Your task to perform on an android device: install app "NewsBreak: Local News & Alerts" Image 0: 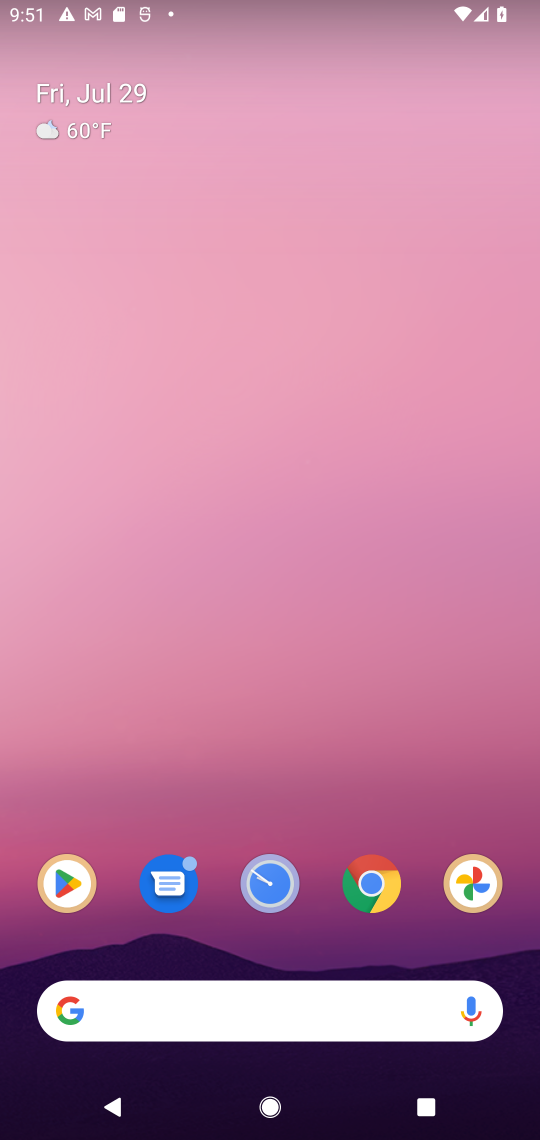
Step 0: click (69, 881)
Your task to perform on an android device: install app "NewsBreak: Local News & Alerts" Image 1: 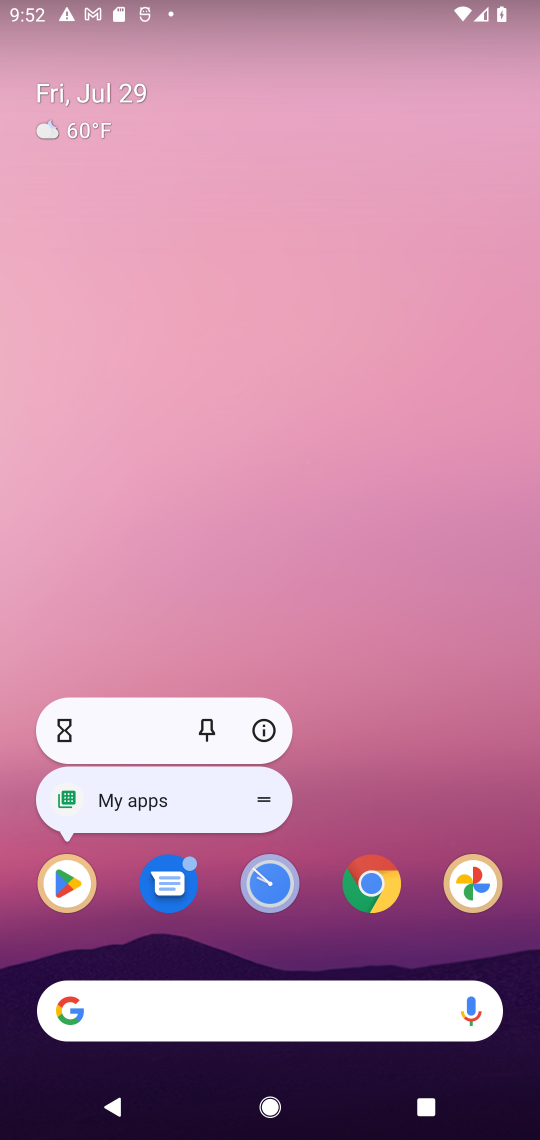
Step 1: click (70, 884)
Your task to perform on an android device: install app "NewsBreak: Local News & Alerts" Image 2: 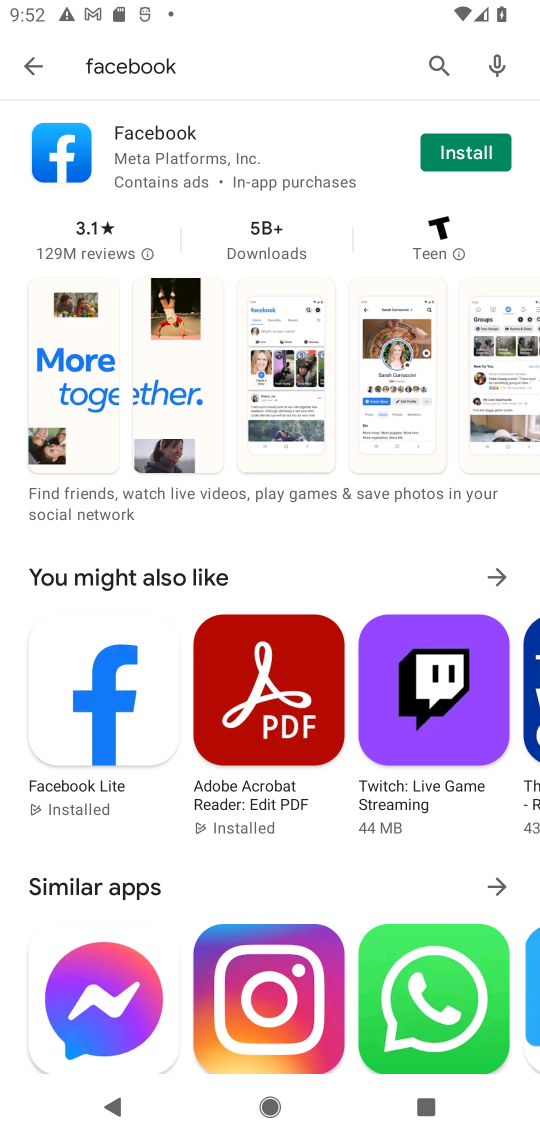
Step 2: click (136, 61)
Your task to perform on an android device: install app "NewsBreak: Local News & Alerts" Image 3: 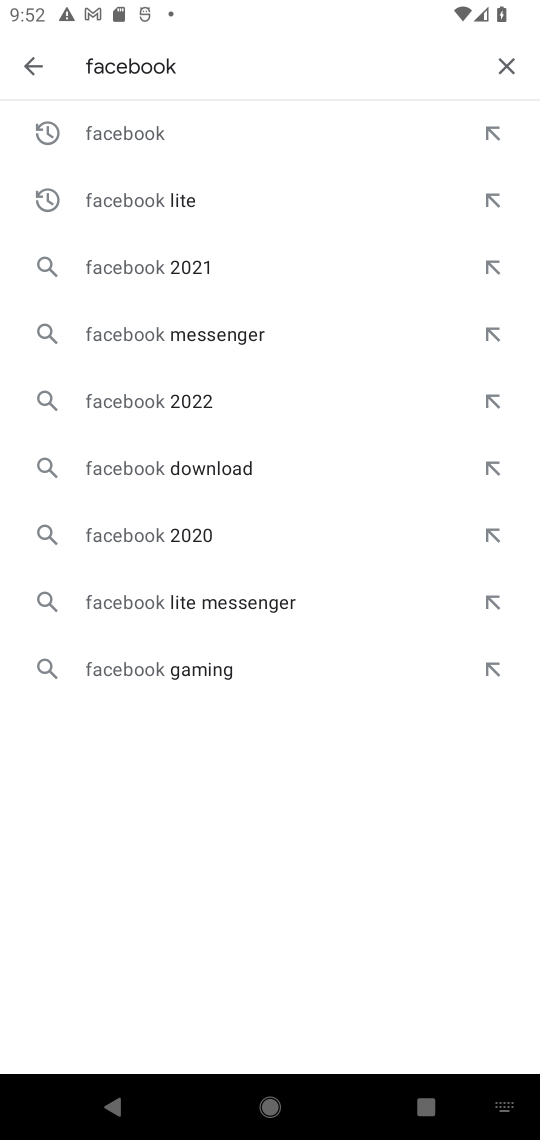
Step 3: click (482, 59)
Your task to perform on an android device: install app "NewsBreak: Local News & Alerts" Image 4: 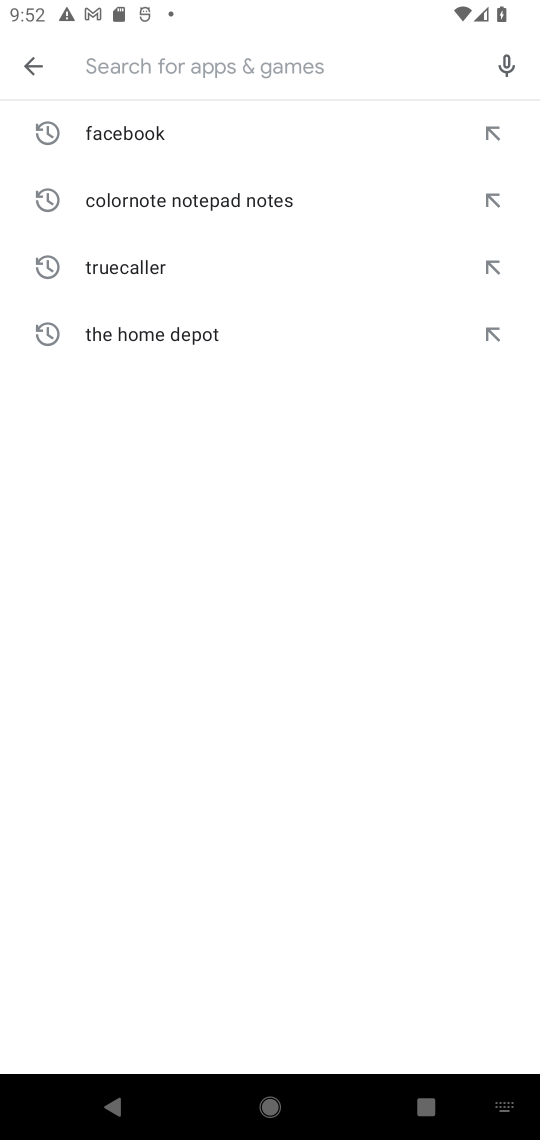
Step 4: type "newsBreak"
Your task to perform on an android device: install app "NewsBreak: Local News & Alerts" Image 5: 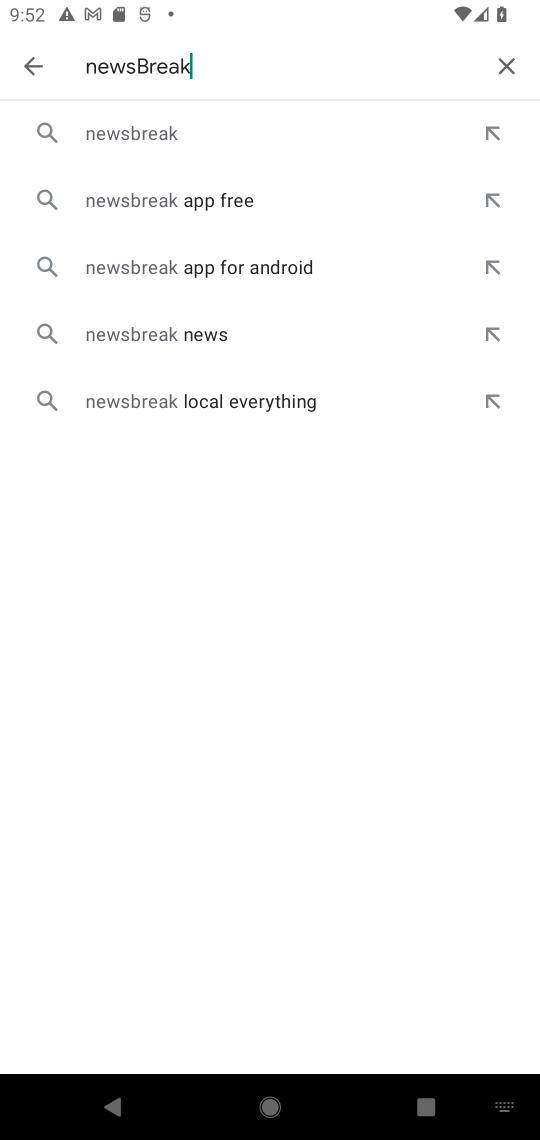
Step 5: click (181, 141)
Your task to perform on an android device: install app "NewsBreak: Local News & Alerts" Image 6: 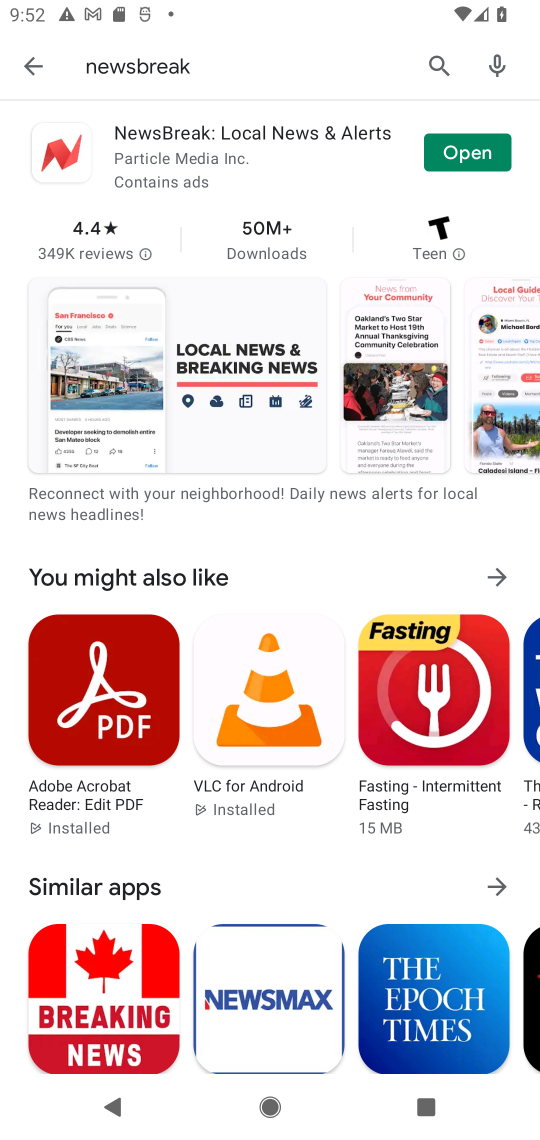
Step 6: task complete